Your task to perform on an android device: toggle pop-ups in chrome Image 0: 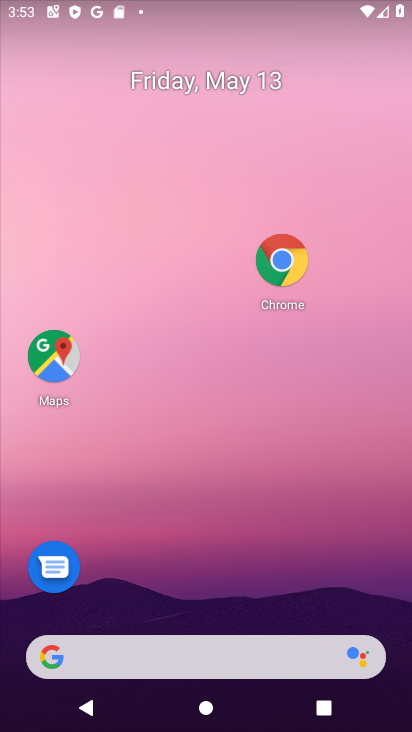
Step 0: drag from (331, 658) to (166, 46)
Your task to perform on an android device: toggle pop-ups in chrome Image 1: 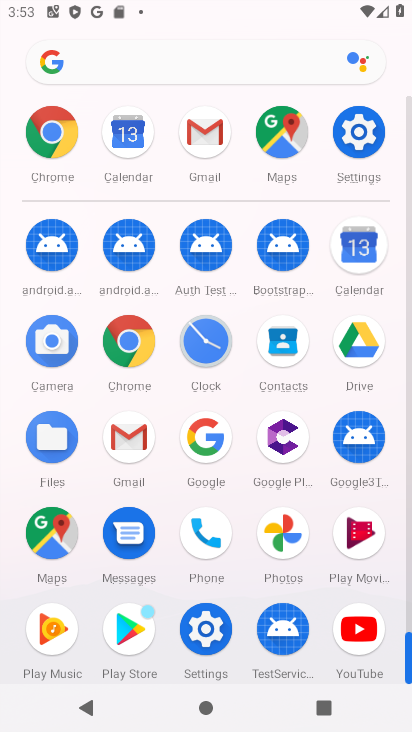
Step 1: click (131, 342)
Your task to perform on an android device: toggle pop-ups in chrome Image 2: 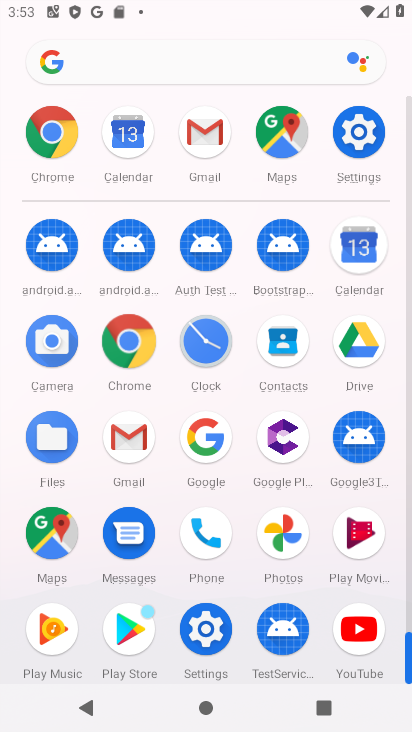
Step 2: click (131, 342)
Your task to perform on an android device: toggle pop-ups in chrome Image 3: 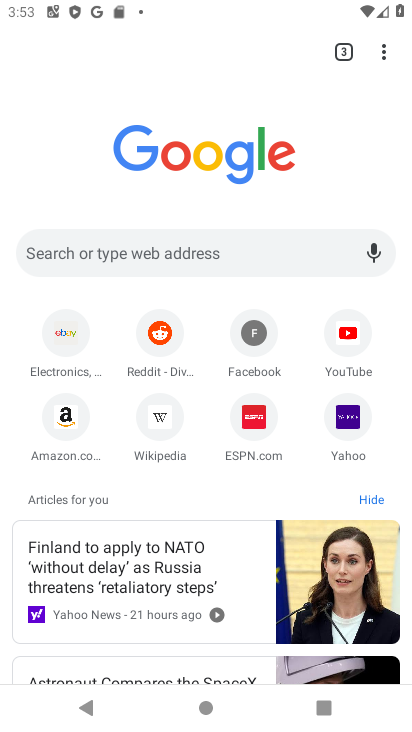
Step 3: drag from (380, 56) to (156, 428)
Your task to perform on an android device: toggle pop-ups in chrome Image 4: 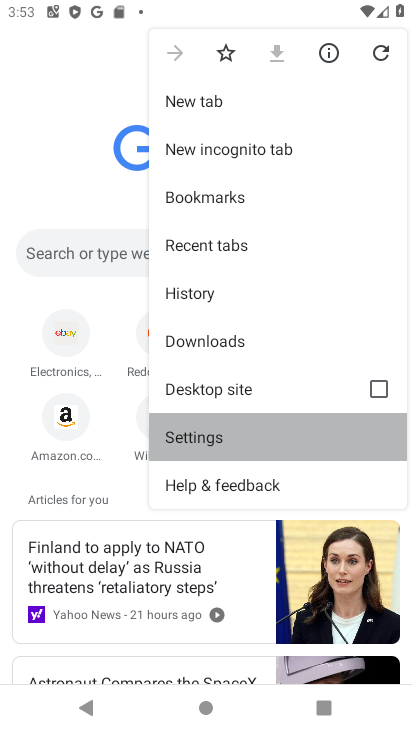
Step 4: click (156, 428)
Your task to perform on an android device: toggle pop-ups in chrome Image 5: 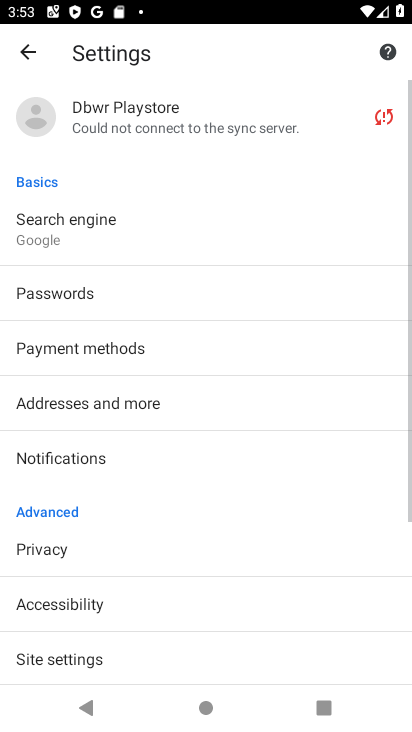
Step 5: drag from (138, 541) to (148, 194)
Your task to perform on an android device: toggle pop-ups in chrome Image 6: 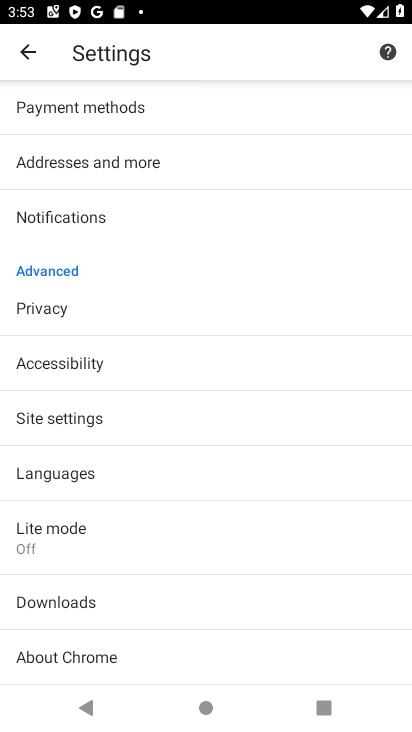
Step 6: click (73, 416)
Your task to perform on an android device: toggle pop-ups in chrome Image 7: 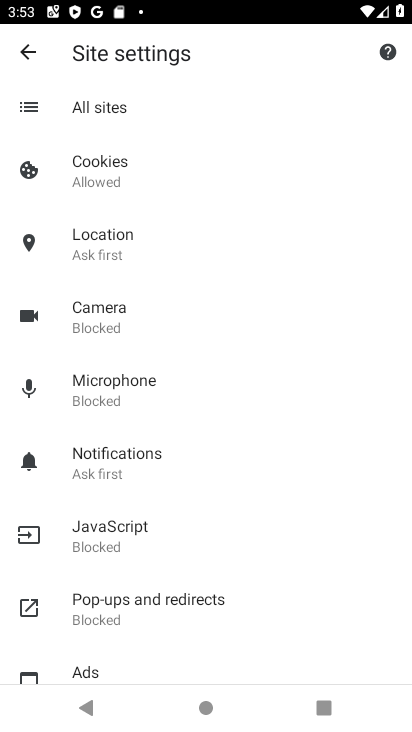
Step 7: click (147, 592)
Your task to perform on an android device: toggle pop-ups in chrome Image 8: 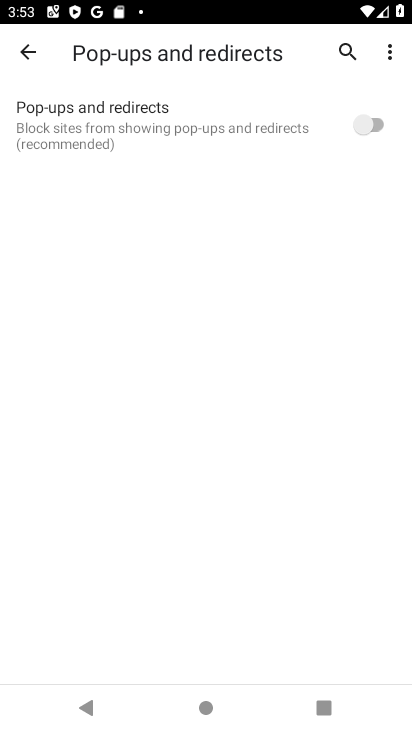
Step 8: click (357, 123)
Your task to perform on an android device: toggle pop-ups in chrome Image 9: 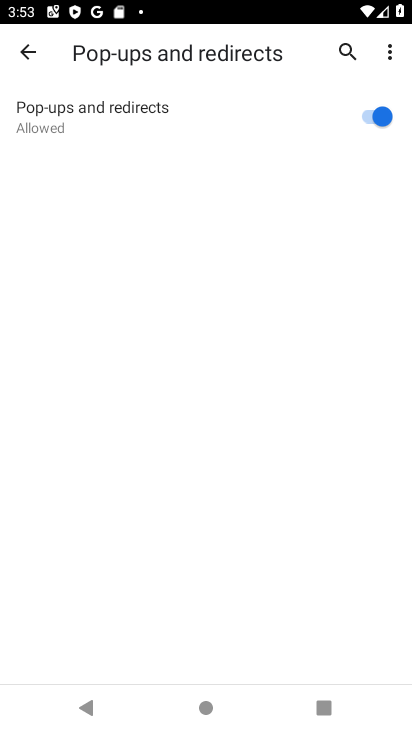
Step 9: click (379, 117)
Your task to perform on an android device: toggle pop-ups in chrome Image 10: 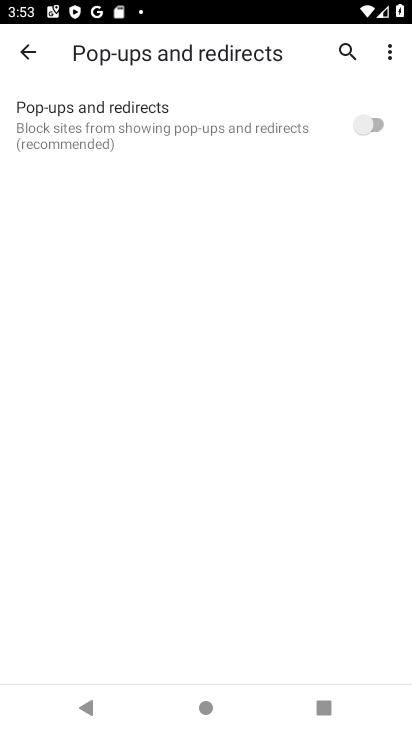
Step 10: click (362, 125)
Your task to perform on an android device: toggle pop-ups in chrome Image 11: 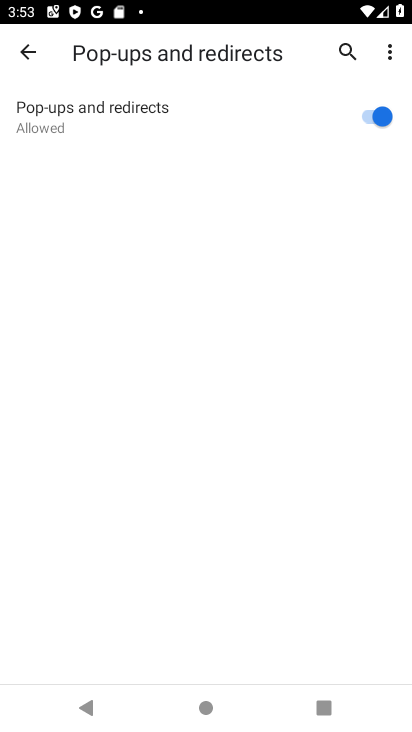
Step 11: task complete